Your task to perform on an android device: open wifi settings Image 0: 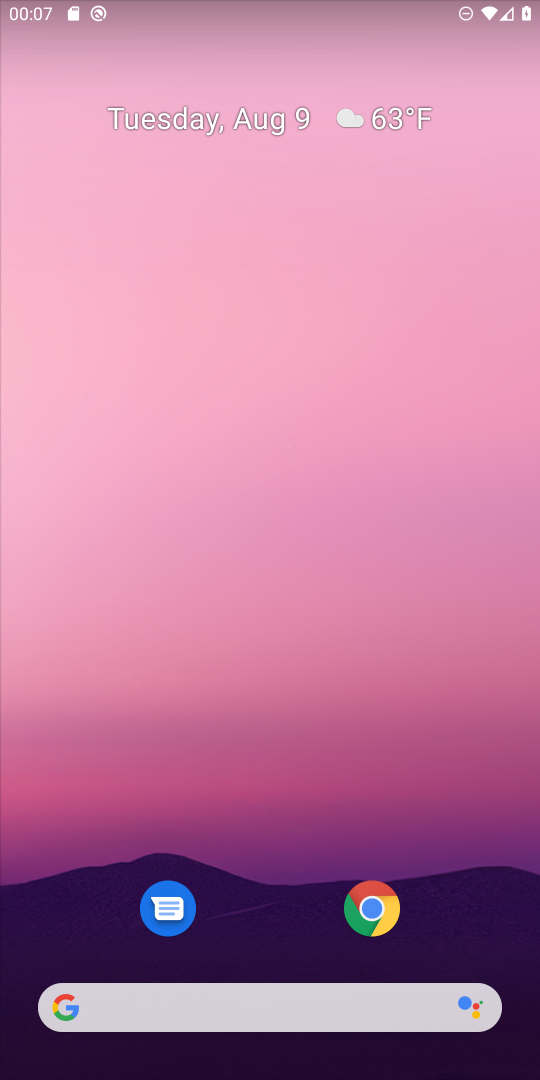
Step 0: drag from (270, 907) to (284, 6)
Your task to perform on an android device: open wifi settings Image 1: 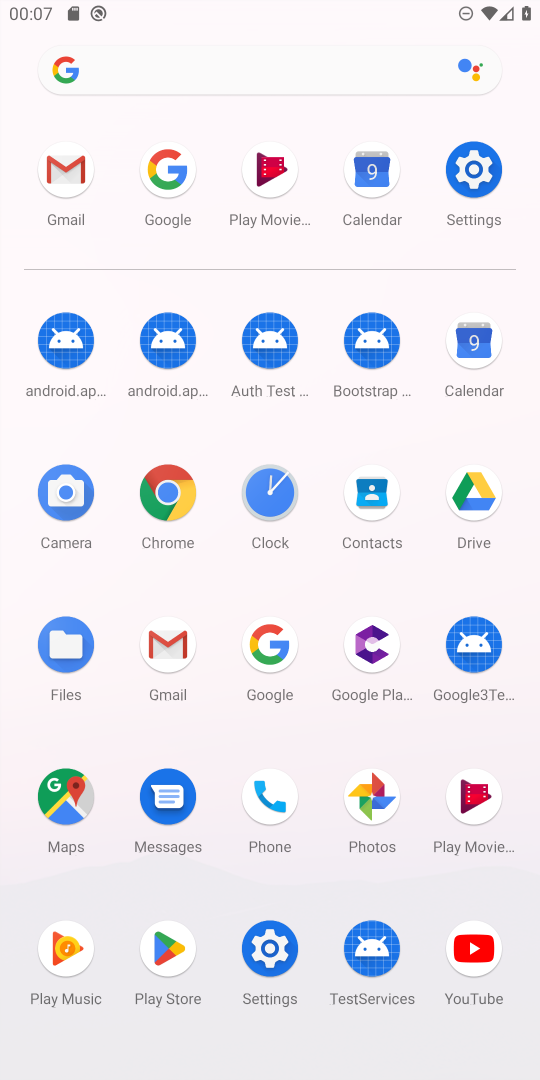
Step 1: click (484, 185)
Your task to perform on an android device: open wifi settings Image 2: 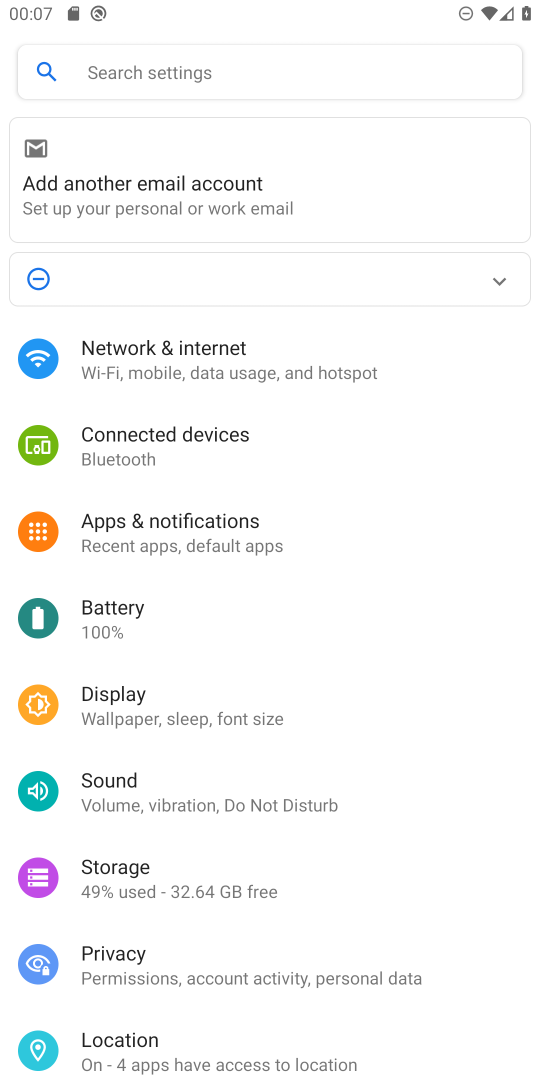
Step 2: click (276, 354)
Your task to perform on an android device: open wifi settings Image 3: 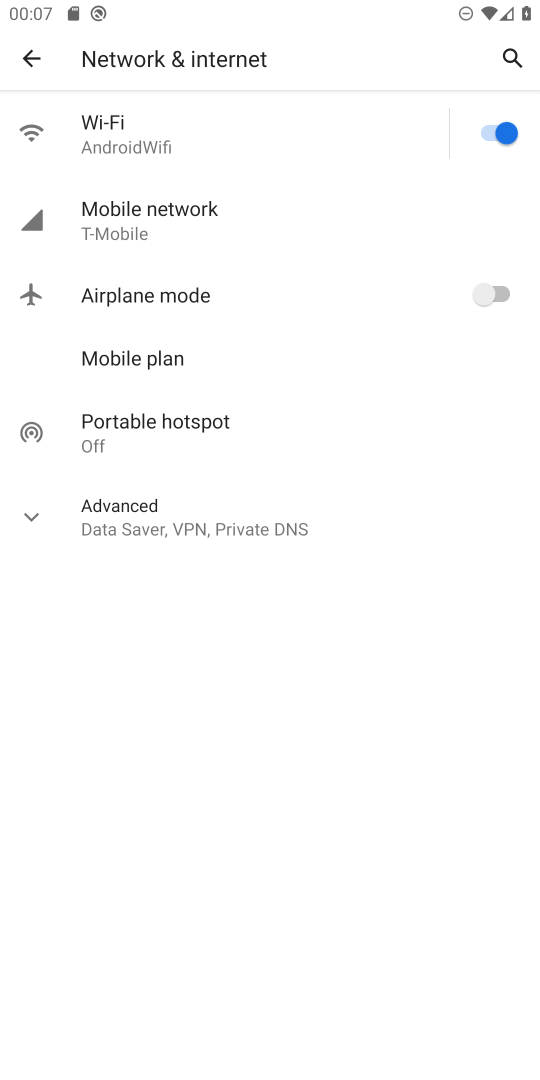
Step 3: click (108, 131)
Your task to perform on an android device: open wifi settings Image 4: 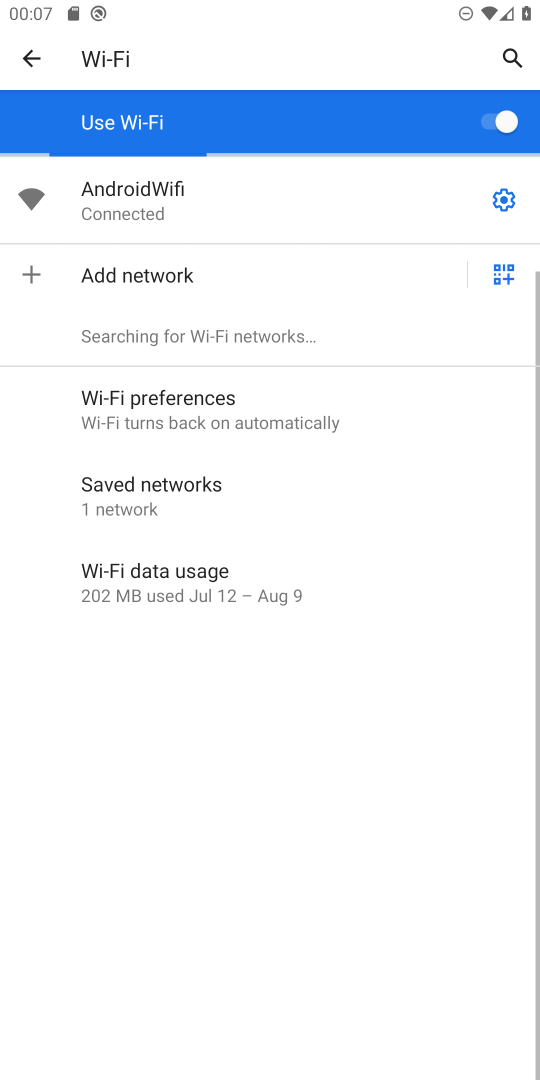
Step 4: task complete